Your task to perform on an android device: toggle wifi Image 0: 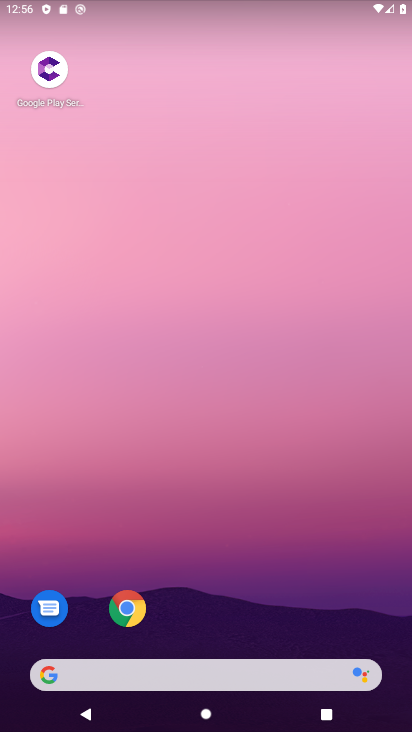
Step 0: drag from (259, 580) to (320, 23)
Your task to perform on an android device: toggle wifi Image 1: 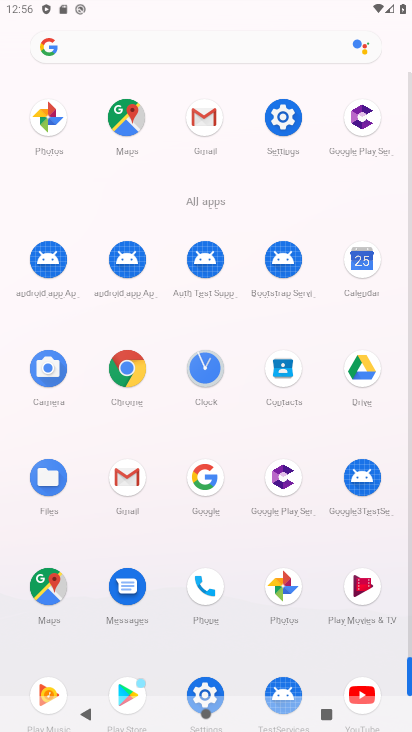
Step 1: click (280, 122)
Your task to perform on an android device: toggle wifi Image 2: 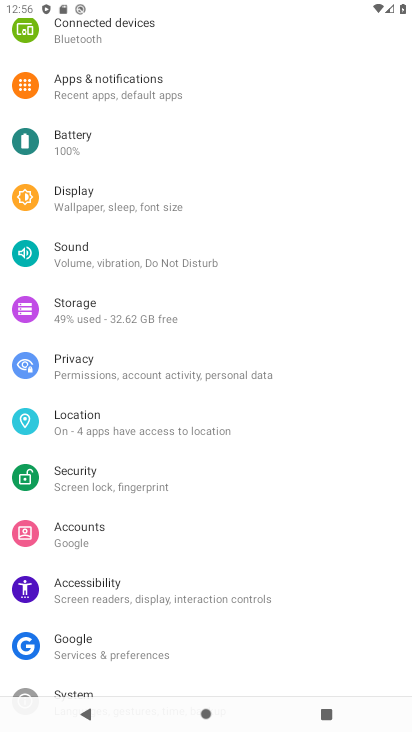
Step 2: drag from (189, 68) to (243, 562)
Your task to perform on an android device: toggle wifi Image 3: 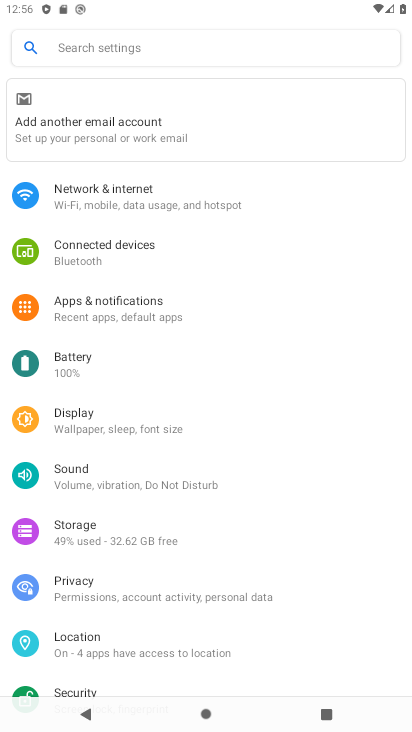
Step 3: click (169, 194)
Your task to perform on an android device: toggle wifi Image 4: 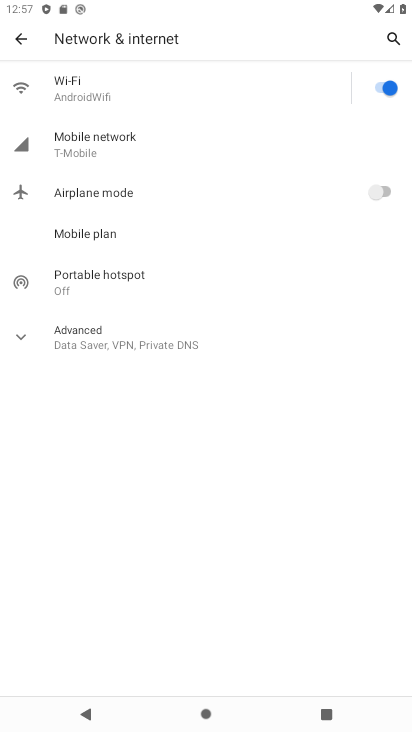
Step 4: click (386, 80)
Your task to perform on an android device: toggle wifi Image 5: 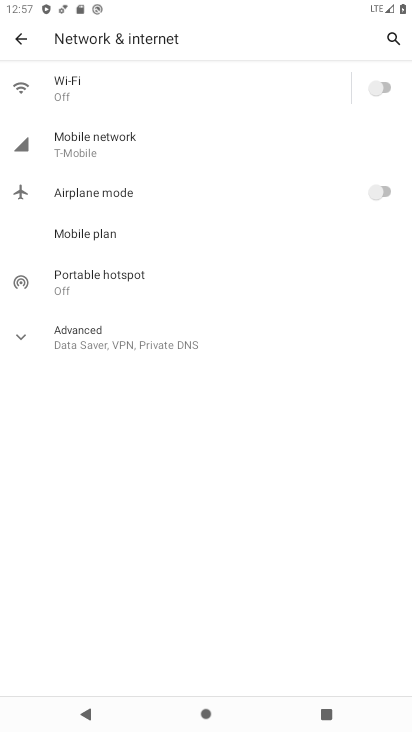
Step 5: task complete